Your task to perform on an android device: What's the weather going to be tomorrow? Image 0: 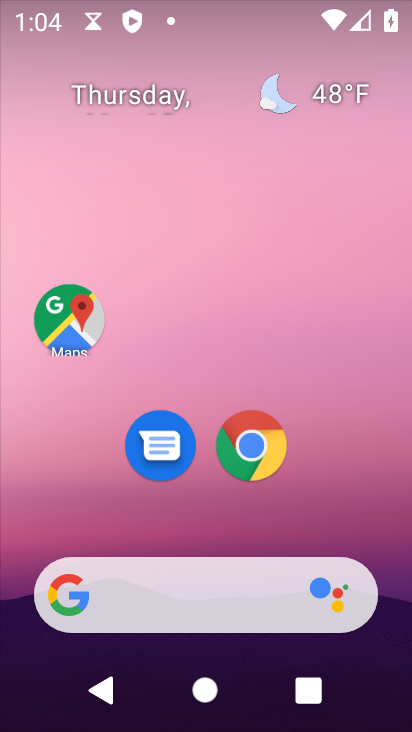
Step 0: click (330, 90)
Your task to perform on an android device: What's the weather going to be tomorrow? Image 1: 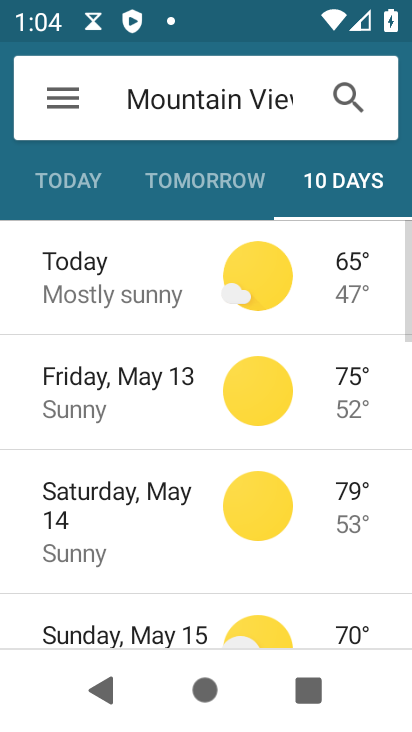
Step 1: click (232, 174)
Your task to perform on an android device: What's the weather going to be tomorrow? Image 2: 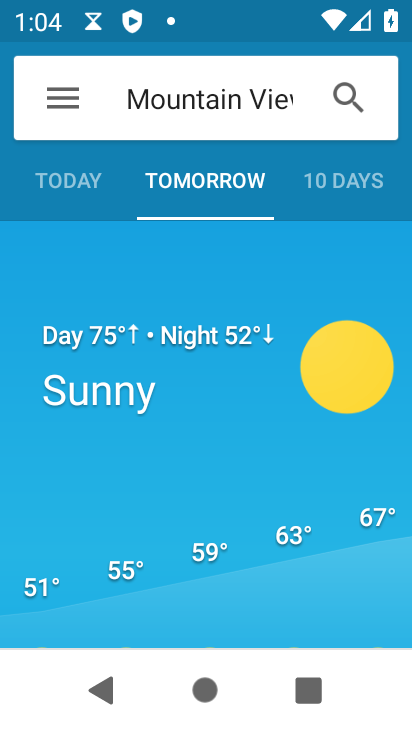
Step 2: task complete